Your task to perform on an android device: open a new tab in the chrome app Image 0: 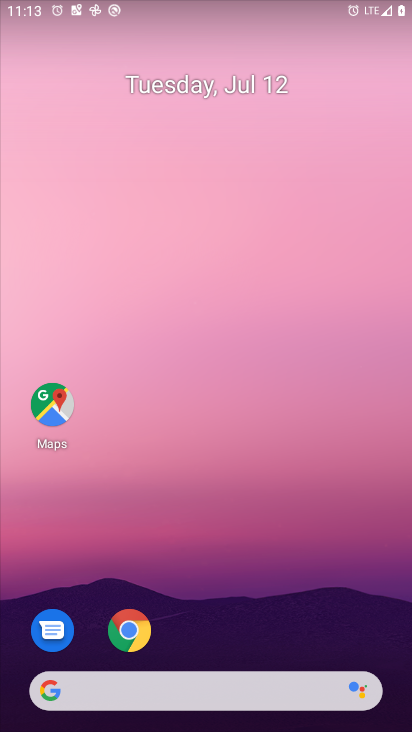
Step 0: press home button
Your task to perform on an android device: open a new tab in the chrome app Image 1: 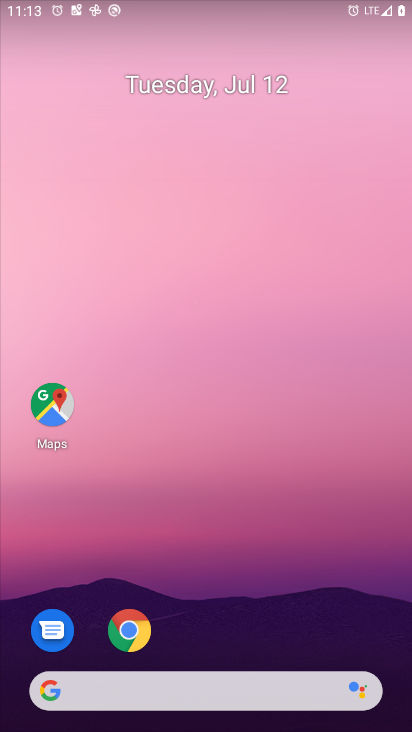
Step 1: click (120, 627)
Your task to perform on an android device: open a new tab in the chrome app Image 2: 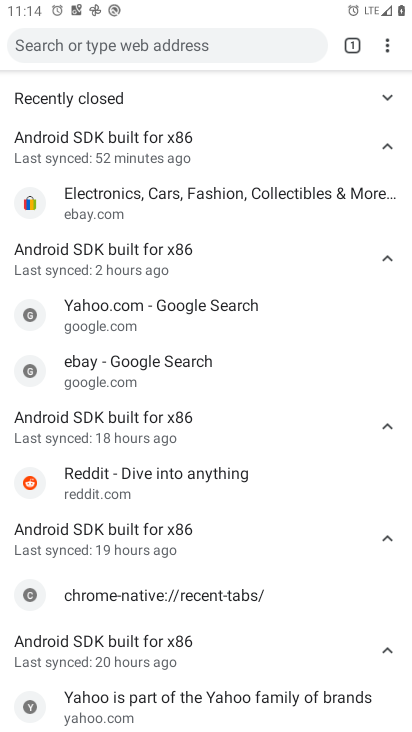
Step 2: click (351, 41)
Your task to perform on an android device: open a new tab in the chrome app Image 3: 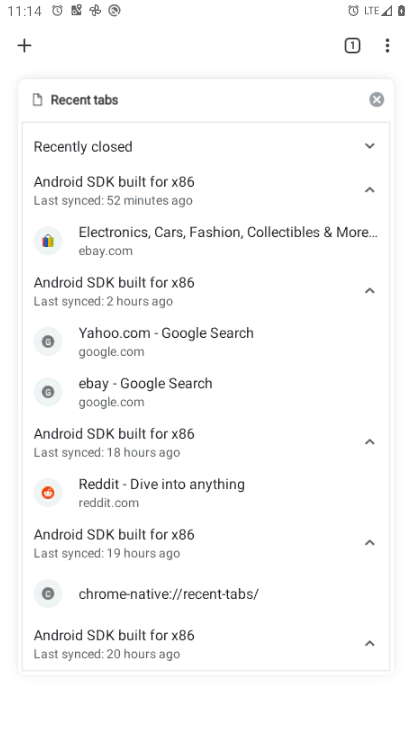
Step 3: click (21, 40)
Your task to perform on an android device: open a new tab in the chrome app Image 4: 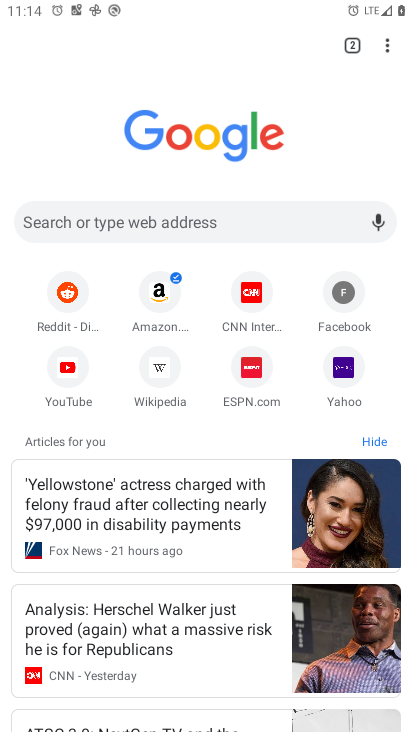
Step 4: task complete